Your task to perform on an android device: turn off data saver in the chrome app Image 0: 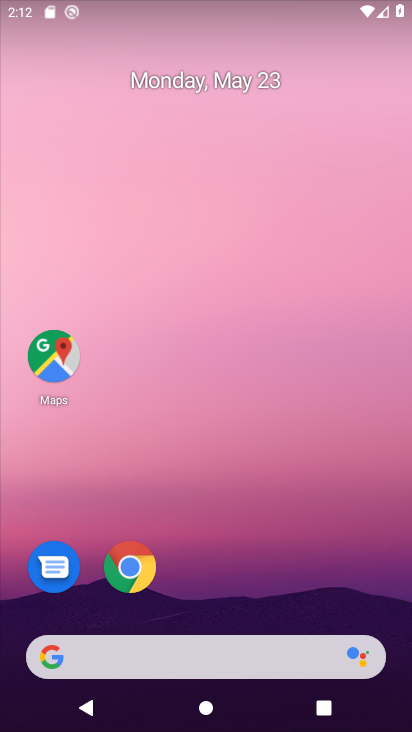
Step 0: click (150, 574)
Your task to perform on an android device: turn off data saver in the chrome app Image 1: 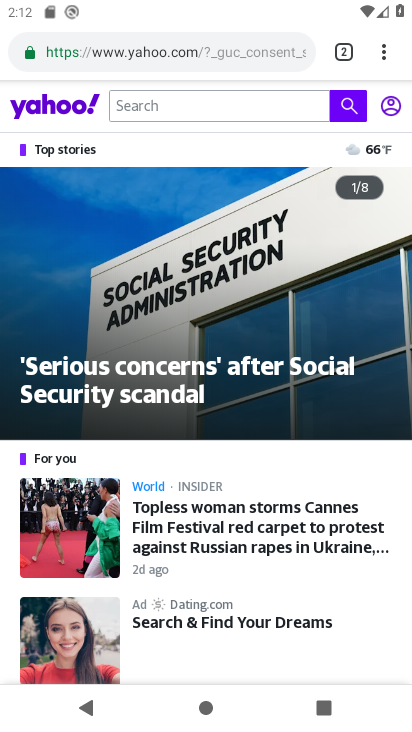
Step 1: click (379, 50)
Your task to perform on an android device: turn off data saver in the chrome app Image 2: 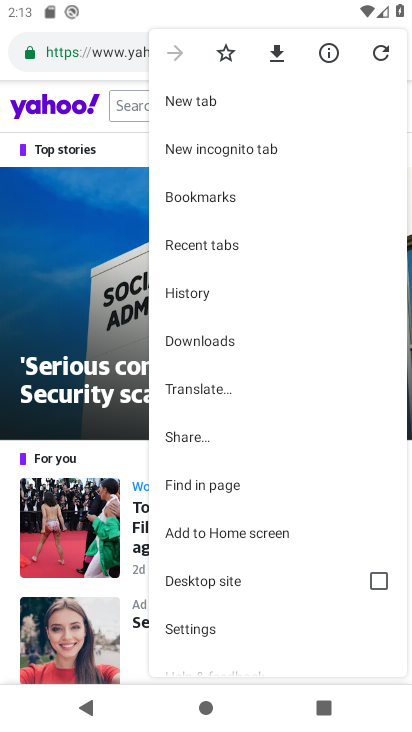
Step 2: click (218, 618)
Your task to perform on an android device: turn off data saver in the chrome app Image 3: 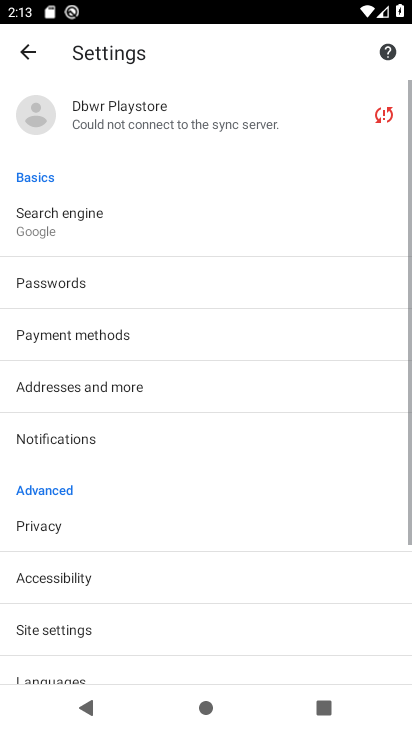
Step 3: drag from (210, 555) to (250, 352)
Your task to perform on an android device: turn off data saver in the chrome app Image 4: 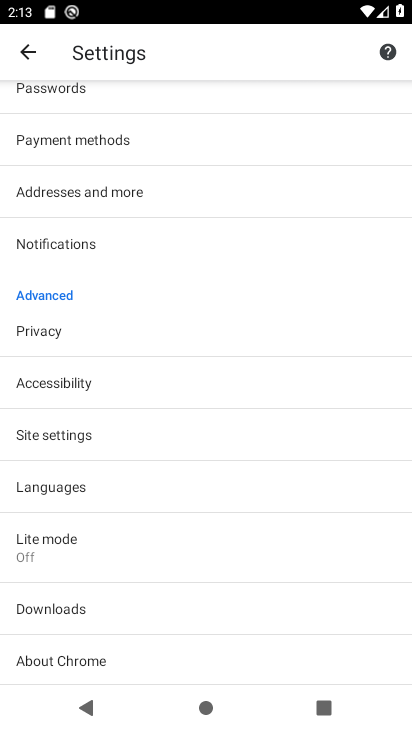
Step 4: click (100, 540)
Your task to perform on an android device: turn off data saver in the chrome app Image 5: 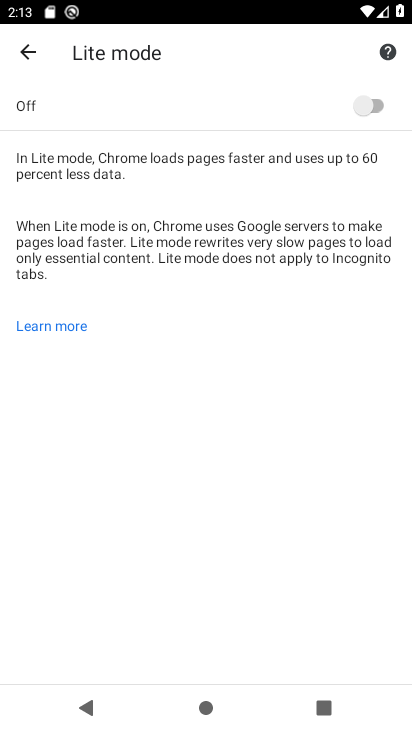
Step 5: task complete